Your task to perform on an android device: turn on improve location accuracy Image 0: 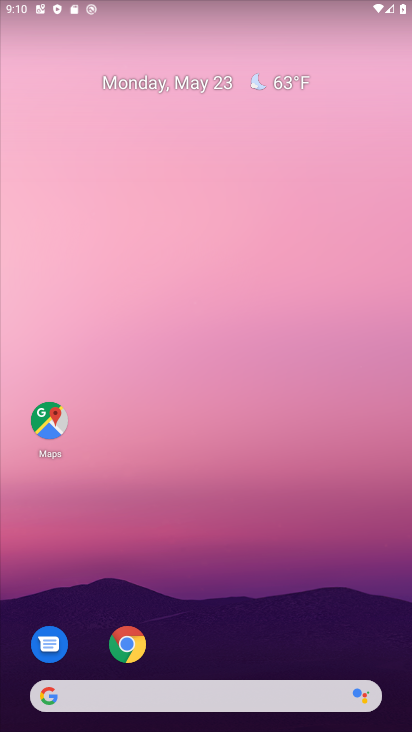
Step 0: press home button
Your task to perform on an android device: turn on improve location accuracy Image 1: 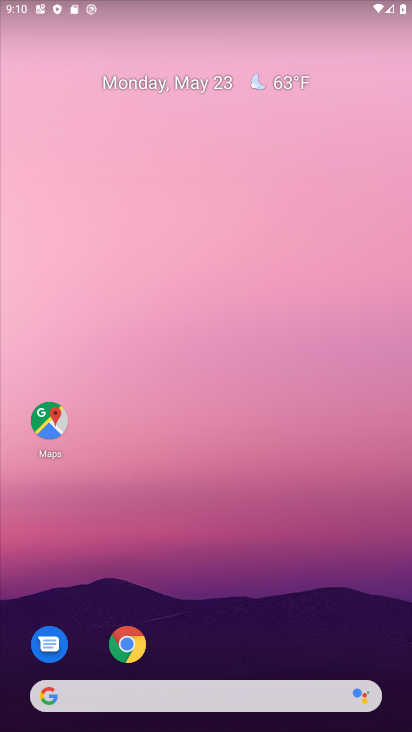
Step 1: drag from (224, 656) to (208, 140)
Your task to perform on an android device: turn on improve location accuracy Image 2: 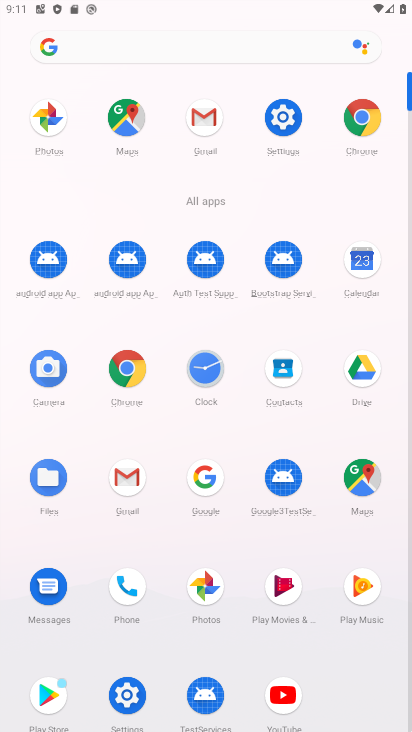
Step 2: click (284, 106)
Your task to perform on an android device: turn on improve location accuracy Image 3: 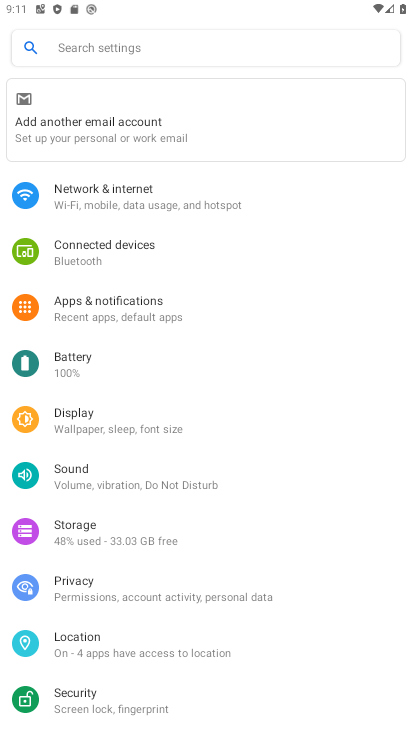
Step 3: click (116, 634)
Your task to perform on an android device: turn on improve location accuracy Image 4: 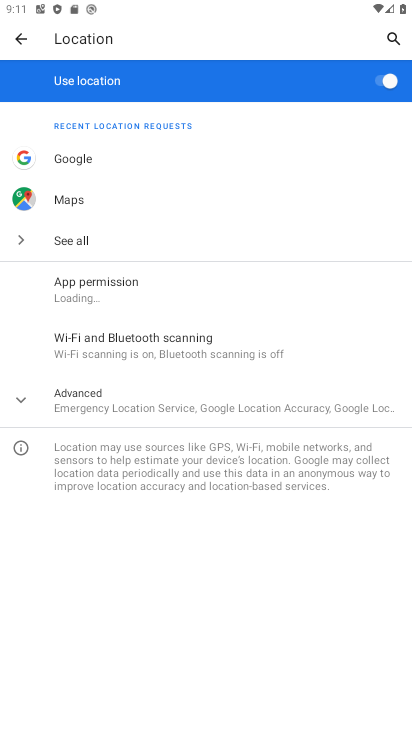
Step 4: click (18, 397)
Your task to perform on an android device: turn on improve location accuracy Image 5: 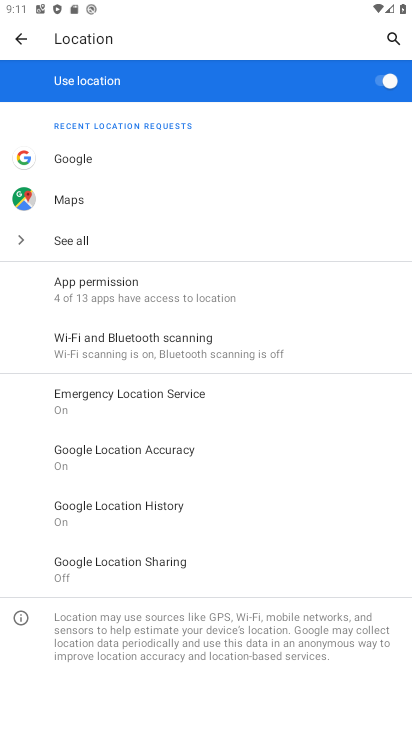
Step 5: click (165, 453)
Your task to perform on an android device: turn on improve location accuracy Image 6: 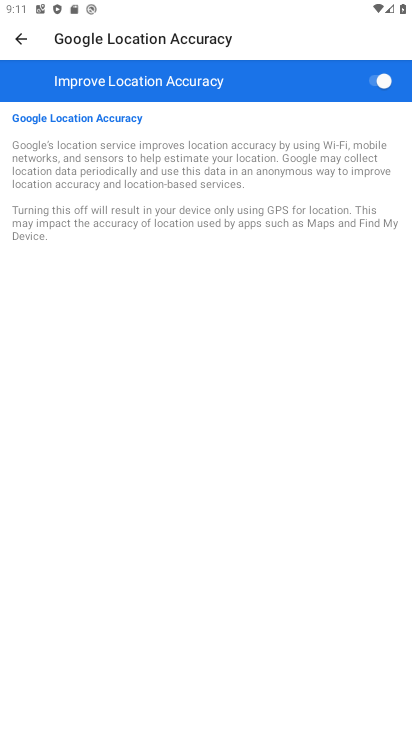
Step 6: task complete